Your task to perform on an android device: Show me the alarms in the clock app Image 0: 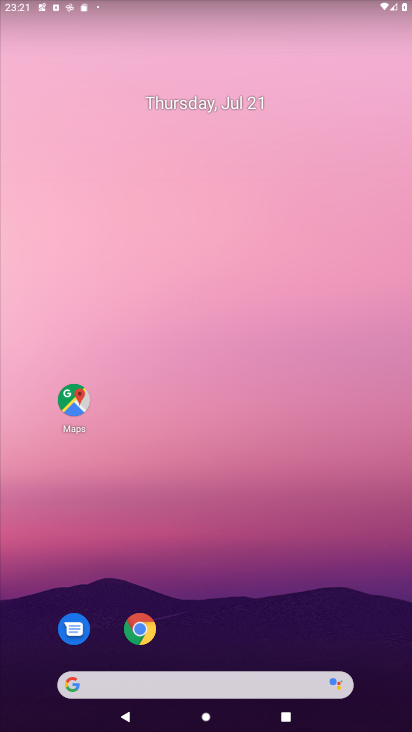
Step 0: drag from (236, 639) to (204, 132)
Your task to perform on an android device: Show me the alarms in the clock app Image 1: 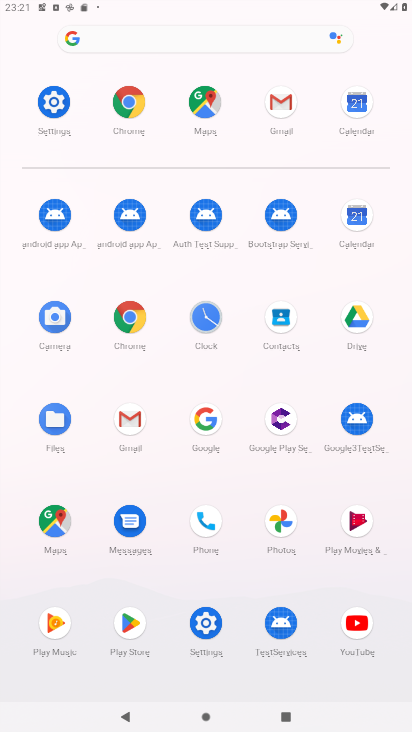
Step 1: click (216, 320)
Your task to perform on an android device: Show me the alarms in the clock app Image 2: 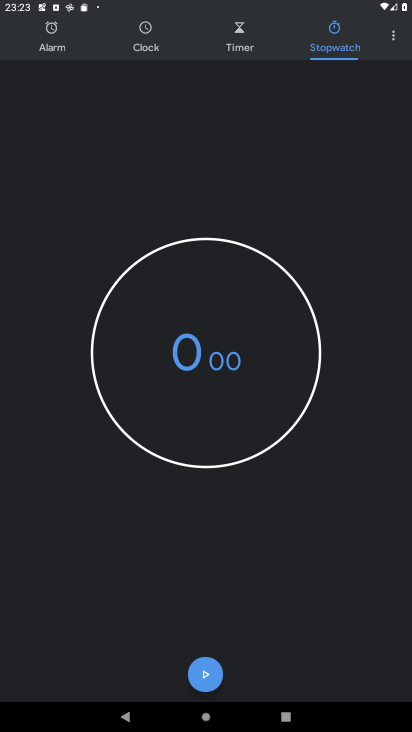
Step 2: click (42, 48)
Your task to perform on an android device: Show me the alarms in the clock app Image 3: 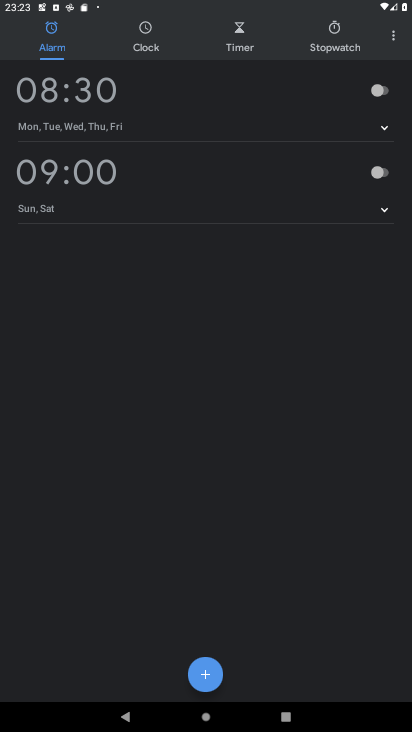
Step 3: task complete